Your task to perform on an android device: remove spam from my inbox in the gmail app Image 0: 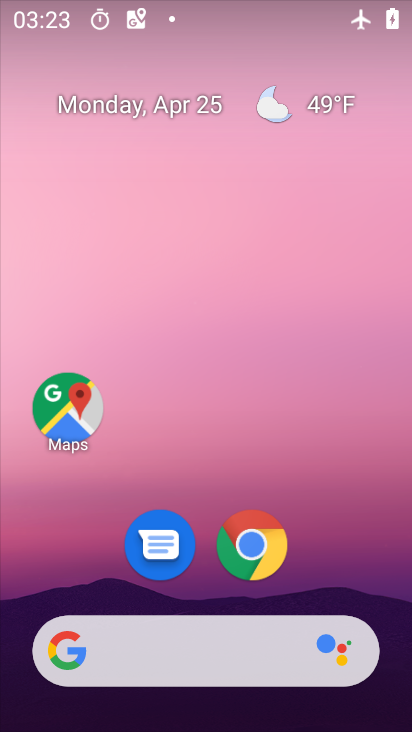
Step 0: drag from (195, 449) to (192, 36)
Your task to perform on an android device: remove spam from my inbox in the gmail app Image 1: 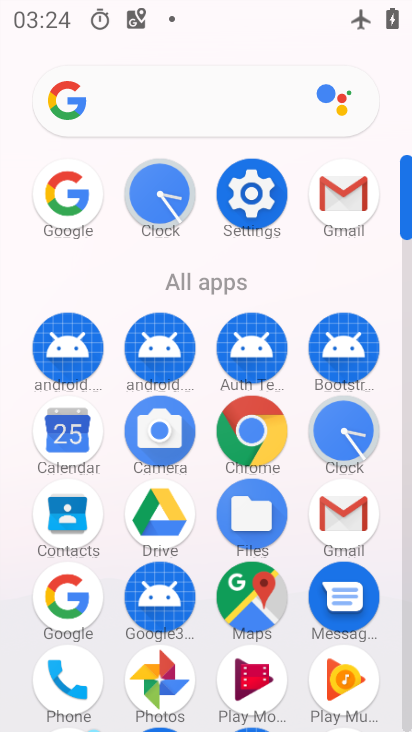
Step 1: click (348, 190)
Your task to perform on an android device: remove spam from my inbox in the gmail app Image 2: 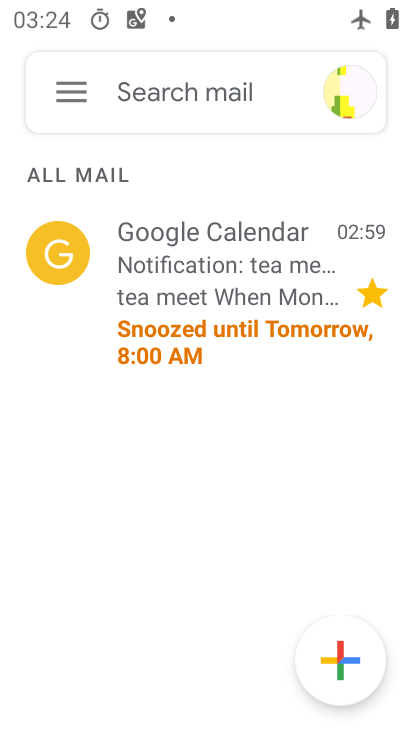
Step 2: click (71, 97)
Your task to perform on an android device: remove spam from my inbox in the gmail app Image 3: 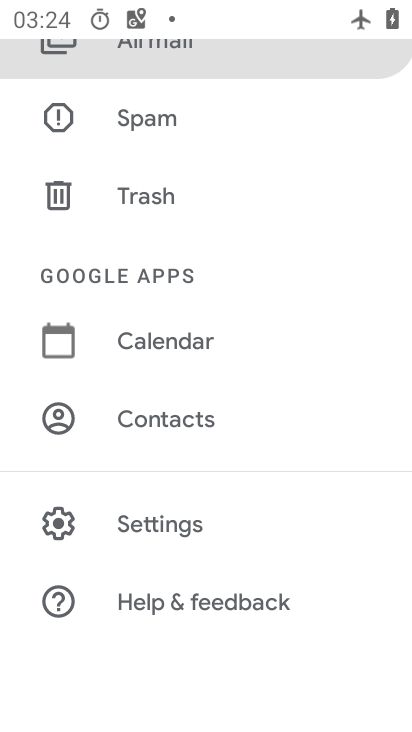
Step 3: click (156, 122)
Your task to perform on an android device: remove spam from my inbox in the gmail app Image 4: 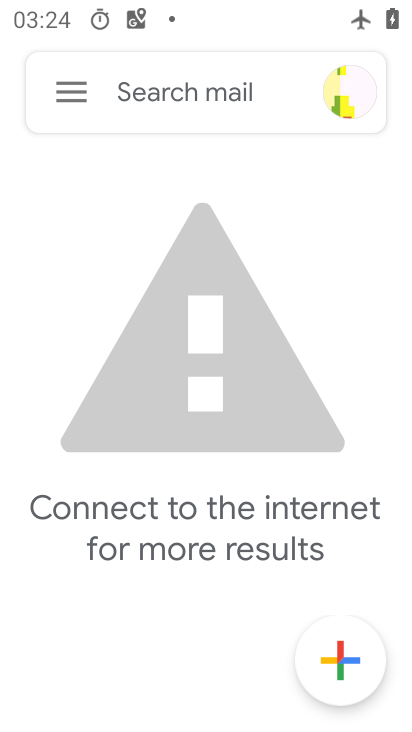
Step 4: task complete